Your task to perform on an android device: show emergency info Image 0: 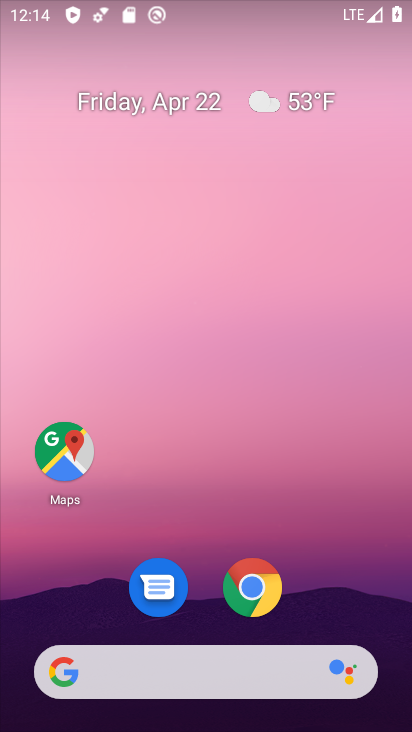
Step 0: drag from (267, 579) to (285, 92)
Your task to perform on an android device: show emergency info Image 1: 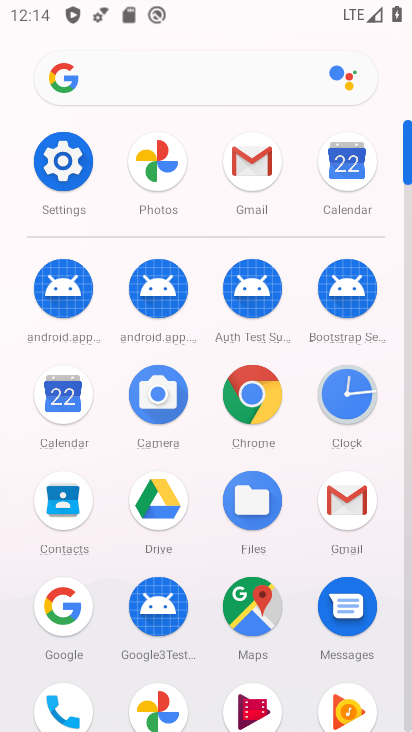
Step 1: click (47, 157)
Your task to perform on an android device: show emergency info Image 2: 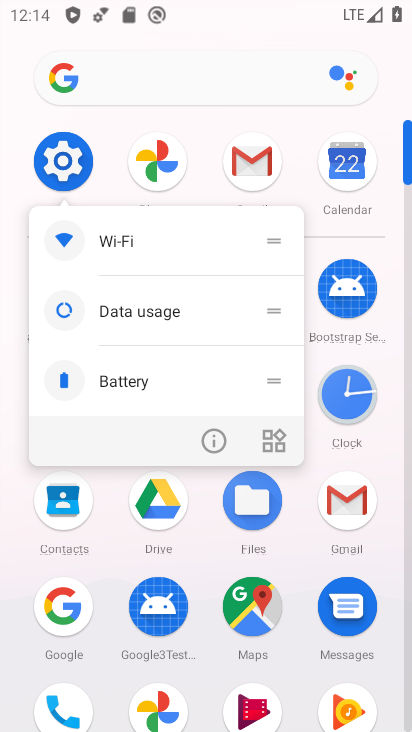
Step 2: click (63, 163)
Your task to perform on an android device: show emergency info Image 3: 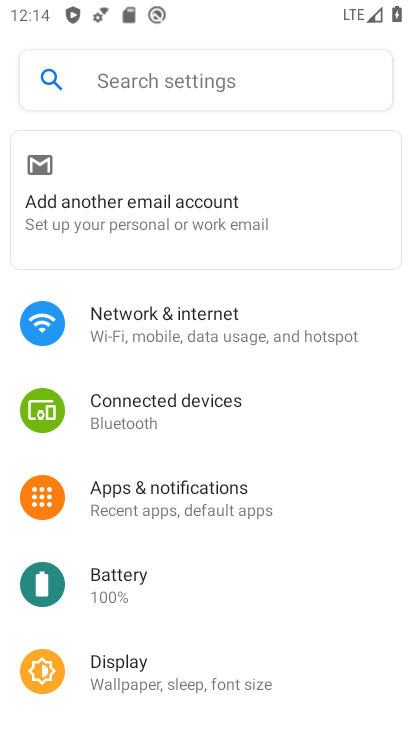
Step 3: drag from (202, 597) to (204, 209)
Your task to perform on an android device: show emergency info Image 4: 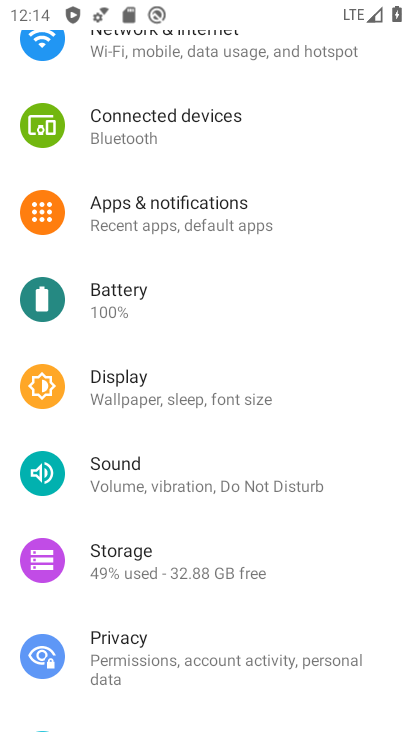
Step 4: drag from (188, 667) to (260, 89)
Your task to perform on an android device: show emergency info Image 5: 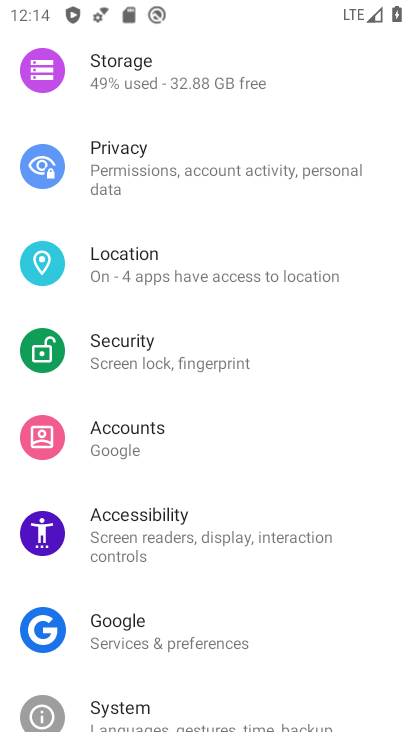
Step 5: drag from (149, 659) to (303, 49)
Your task to perform on an android device: show emergency info Image 6: 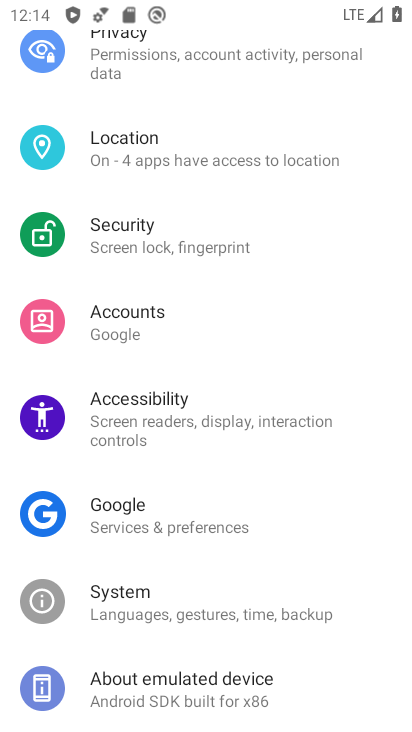
Step 6: click (170, 692)
Your task to perform on an android device: show emergency info Image 7: 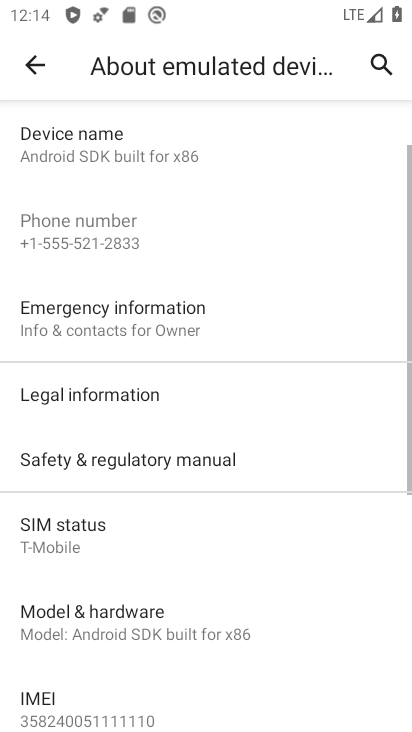
Step 7: click (142, 336)
Your task to perform on an android device: show emergency info Image 8: 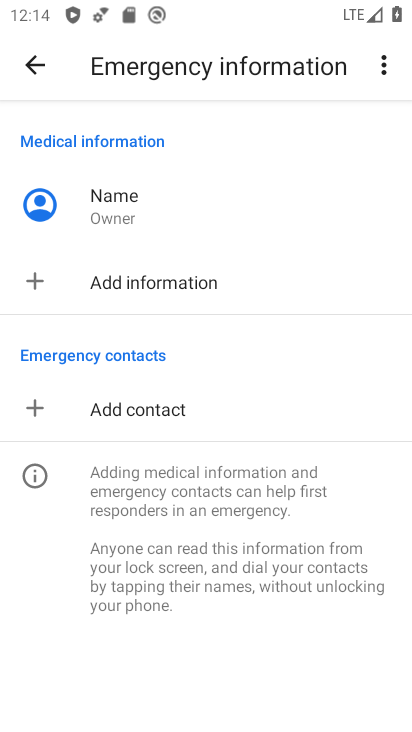
Step 8: task complete